Your task to perform on an android device: Open my contact list Image 0: 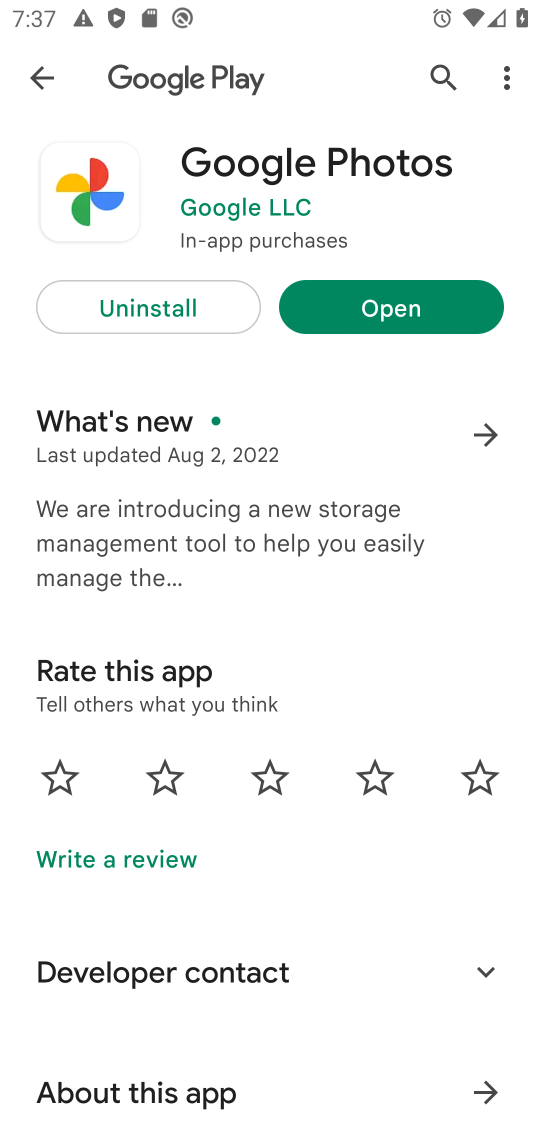
Step 0: press back button
Your task to perform on an android device: Open my contact list Image 1: 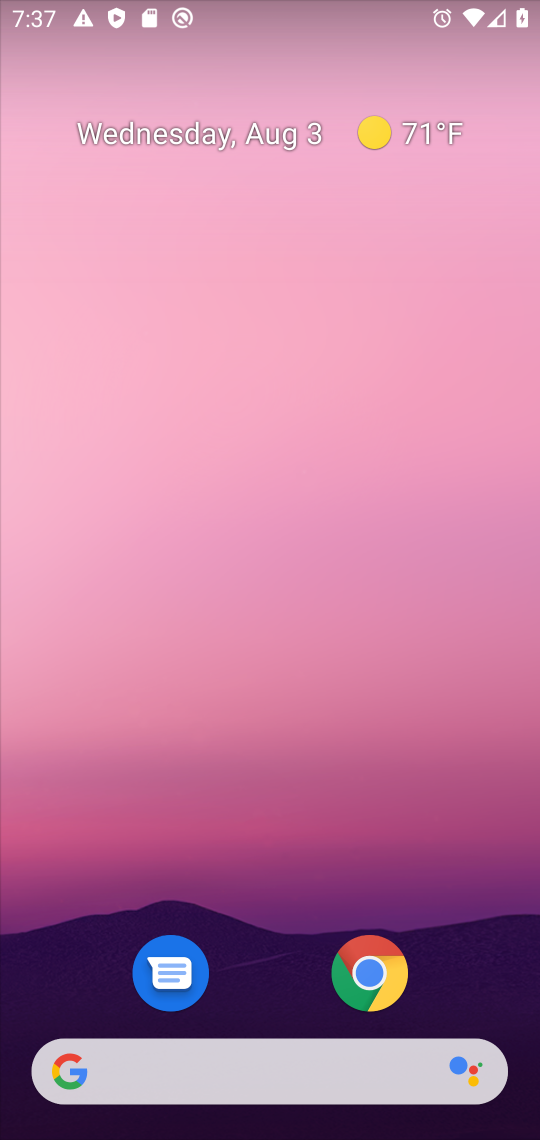
Step 1: drag from (178, 337) to (165, 87)
Your task to perform on an android device: Open my contact list Image 2: 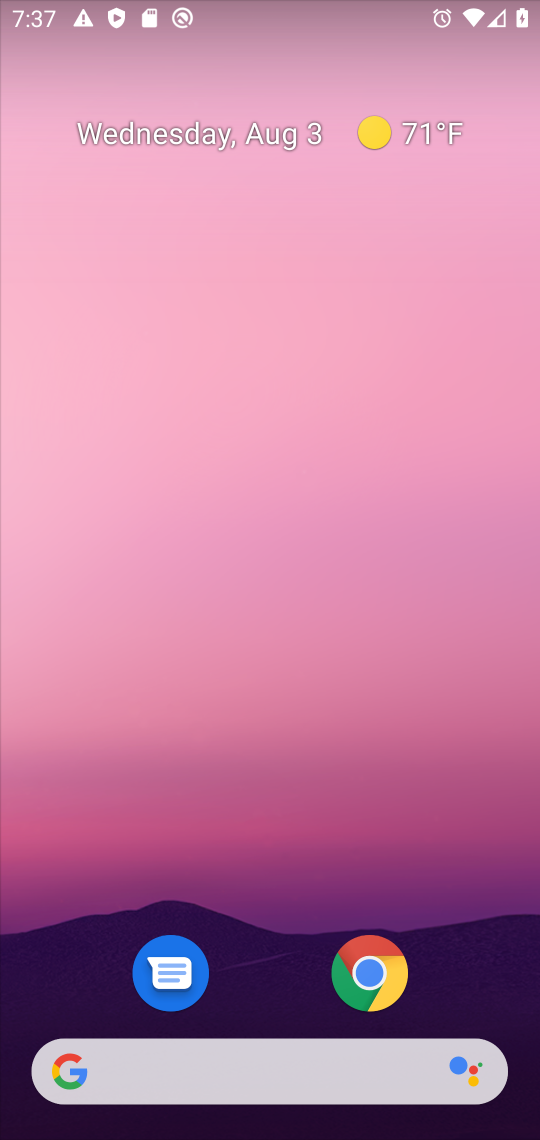
Step 2: drag from (250, 734) to (202, 180)
Your task to perform on an android device: Open my contact list Image 3: 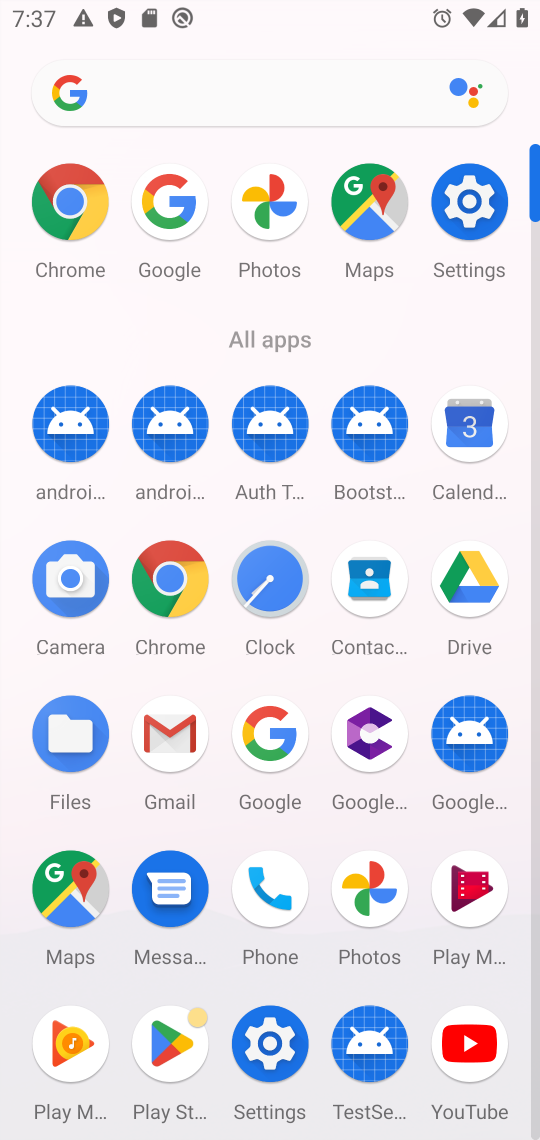
Step 3: click (360, 644)
Your task to perform on an android device: Open my contact list Image 4: 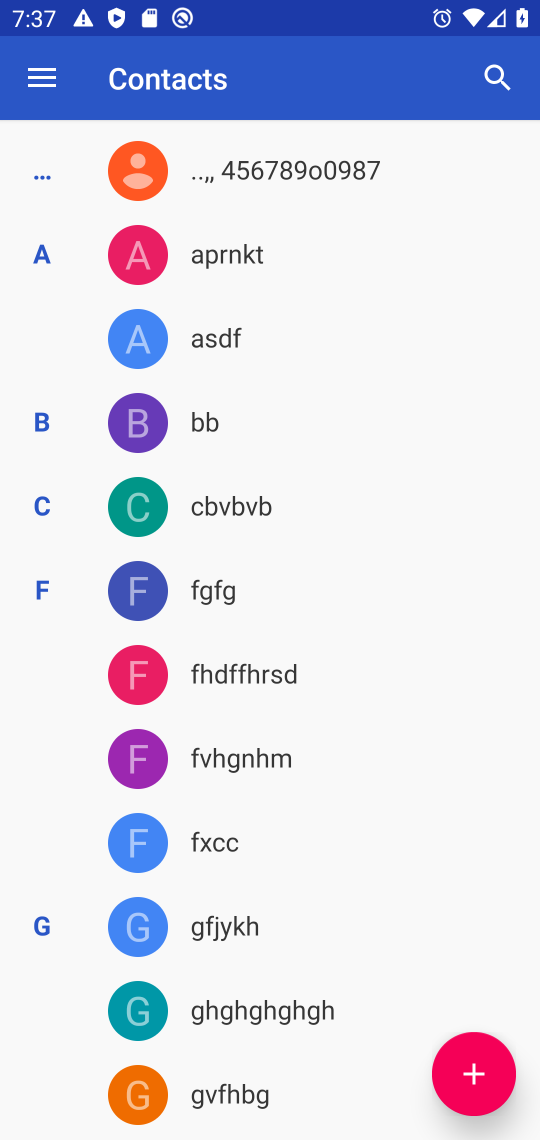
Step 4: task complete